Your task to perform on an android device: all mails in gmail Image 0: 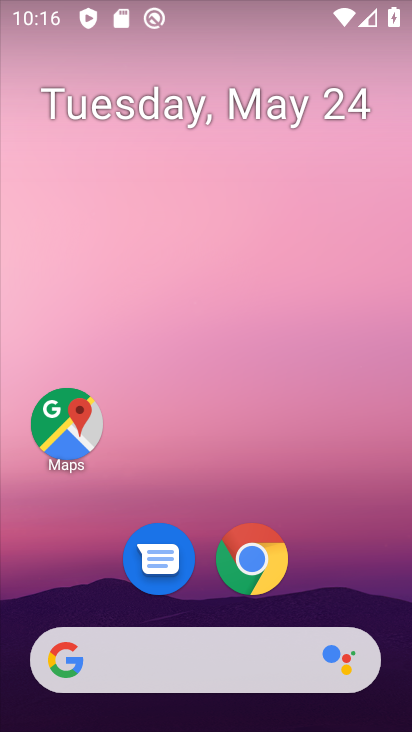
Step 0: drag from (215, 403) to (269, 38)
Your task to perform on an android device: all mails in gmail Image 1: 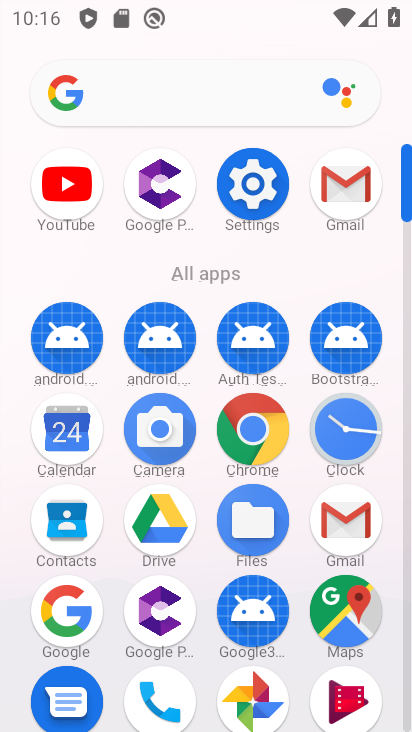
Step 1: click (376, 173)
Your task to perform on an android device: all mails in gmail Image 2: 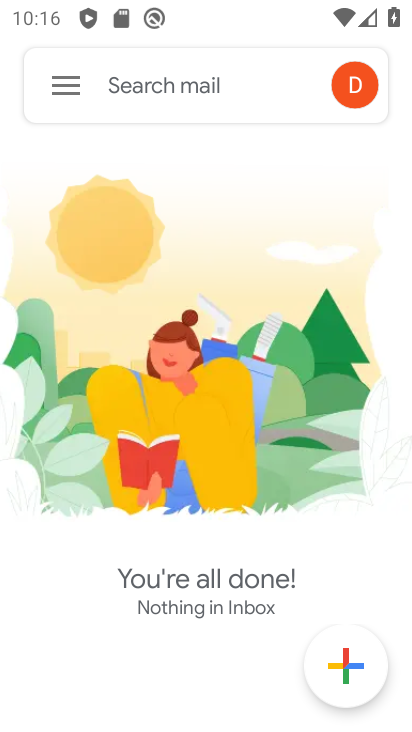
Step 2: click (54, 95)
Your task to perform on an android device: all mails in gmail Image 3: 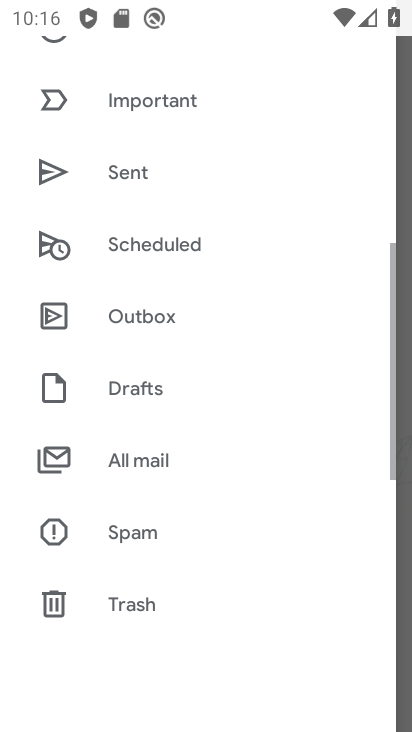
Step 3: click (145, 456)
Your task to perform on an android device: all mails in gmail Image 4: 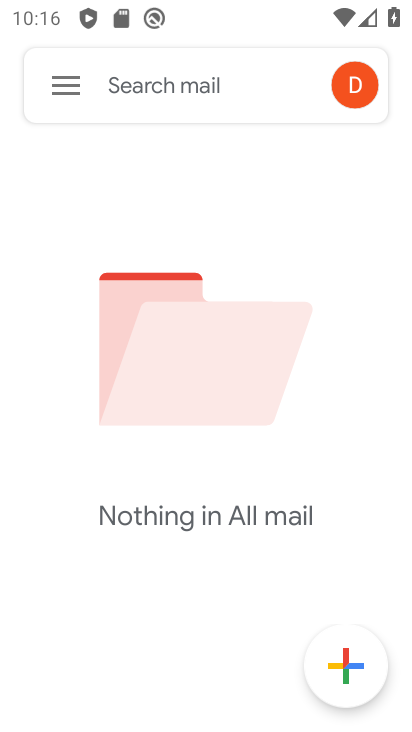
Step 4: task complete